Your task to perform on an android device: Open Amazon Image 0: 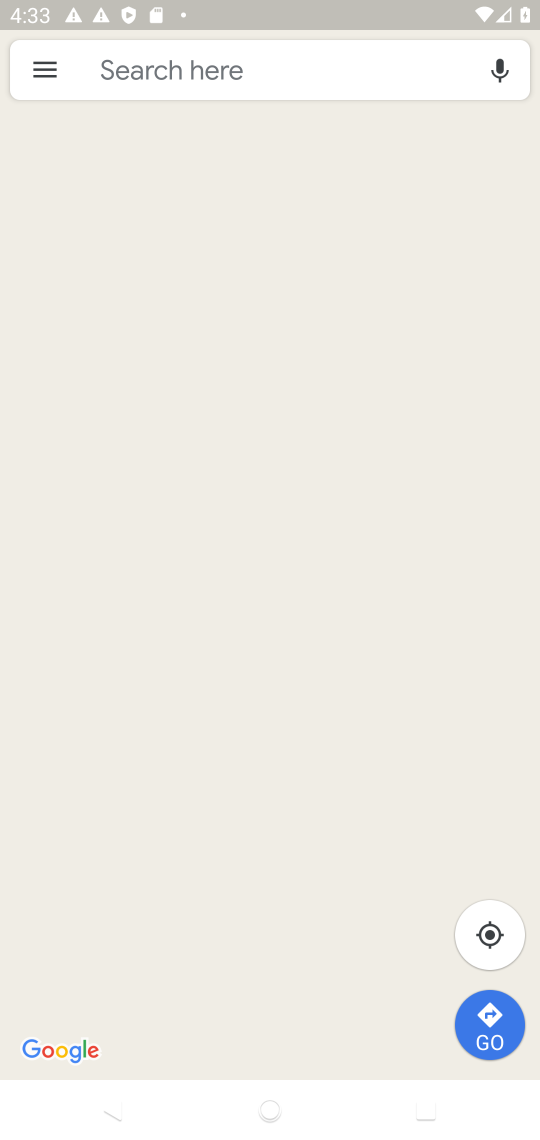
Step 0: press home button
Your task to perform on an android device: Open Amazon Image 1: 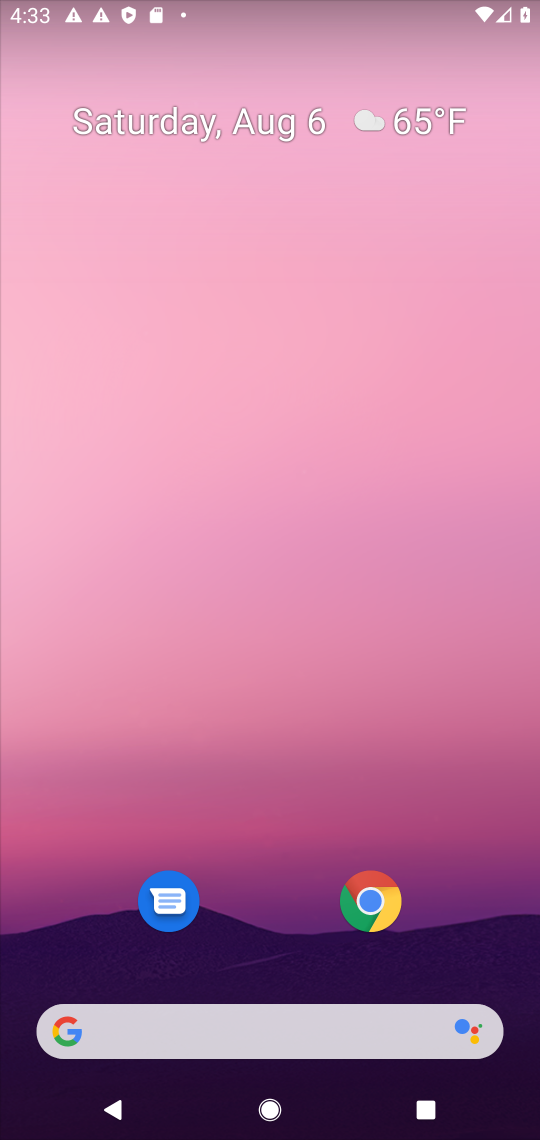
Step 1: click (378, 892)
Your task to perform on an android device: Open Amazon Image 2: 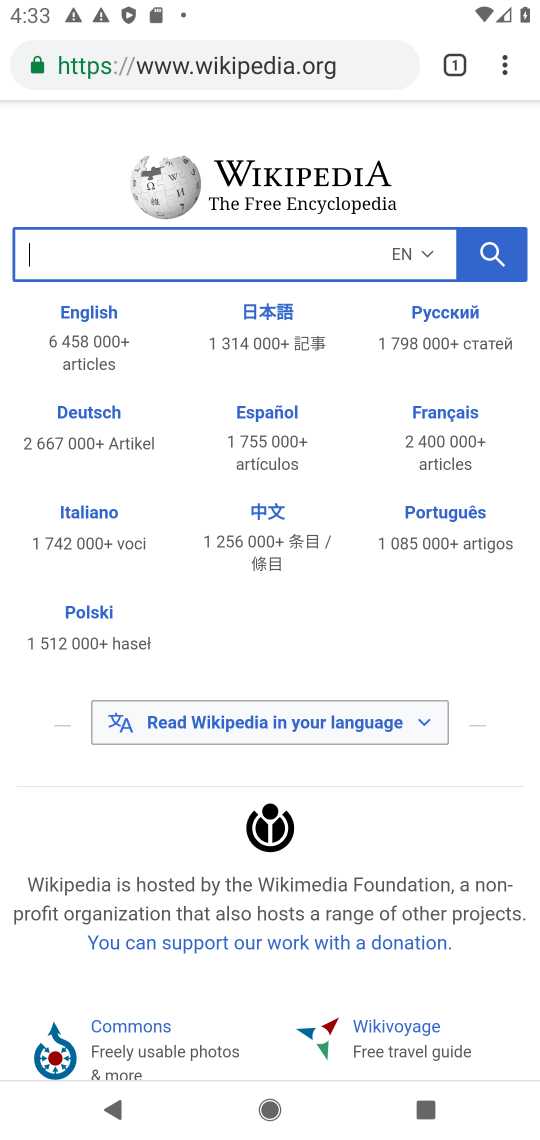
Step 2: drag from (495, 70) to (242, 850)
Your task to perform on an android device: Open Amazon Image 3: 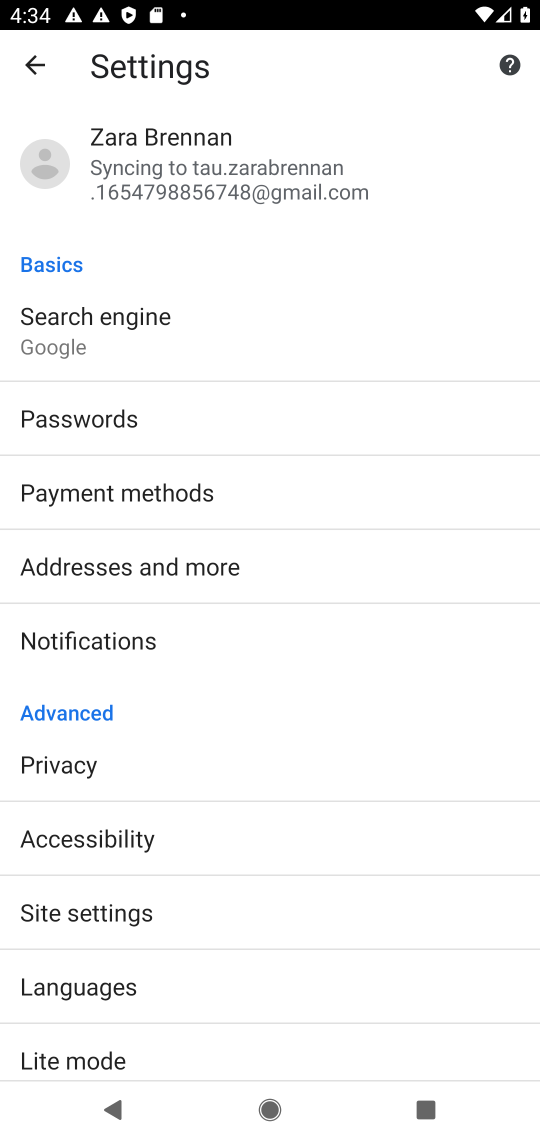
Step 3: click (27, 70)
Your task to perform on an android device: Open Amazon Image 4: 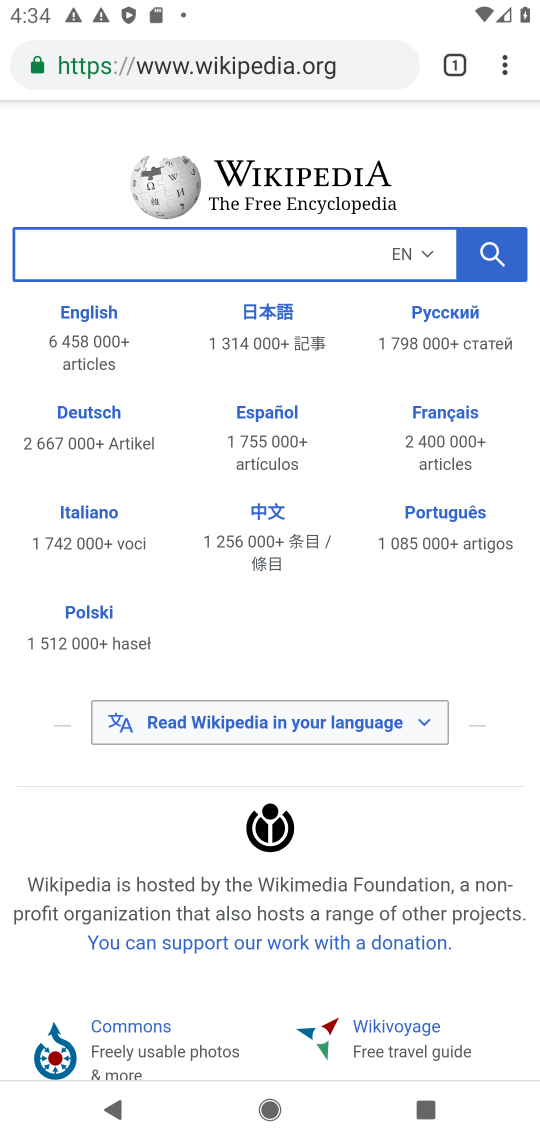
Step 4: click (243, 77)
Your task to perform on an android device: Open Amazon Image 5: 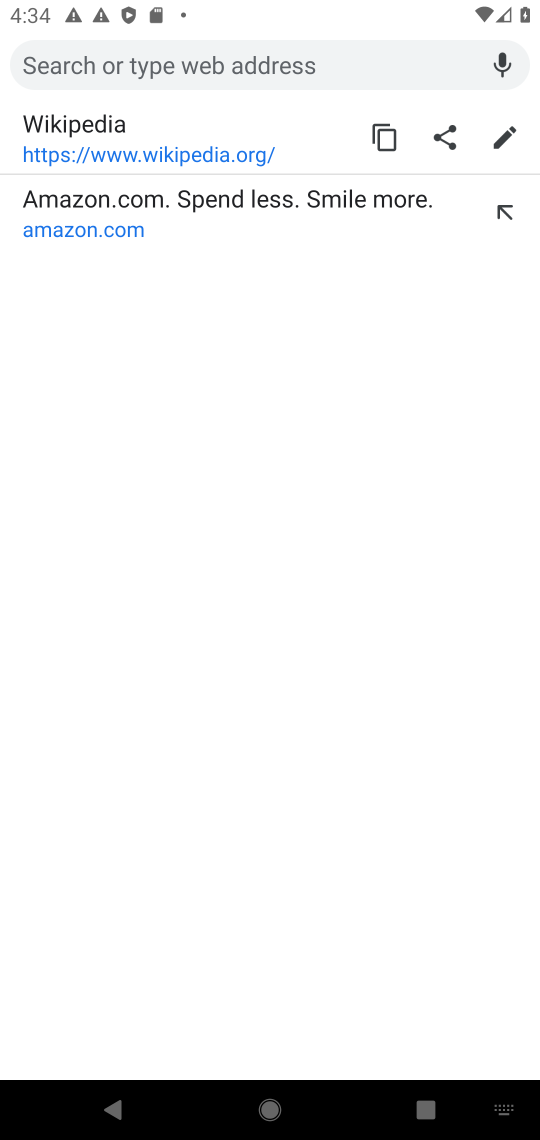
Step 5: type "amazon"
Your task to perform on an android device: Open Amazon Image 6: 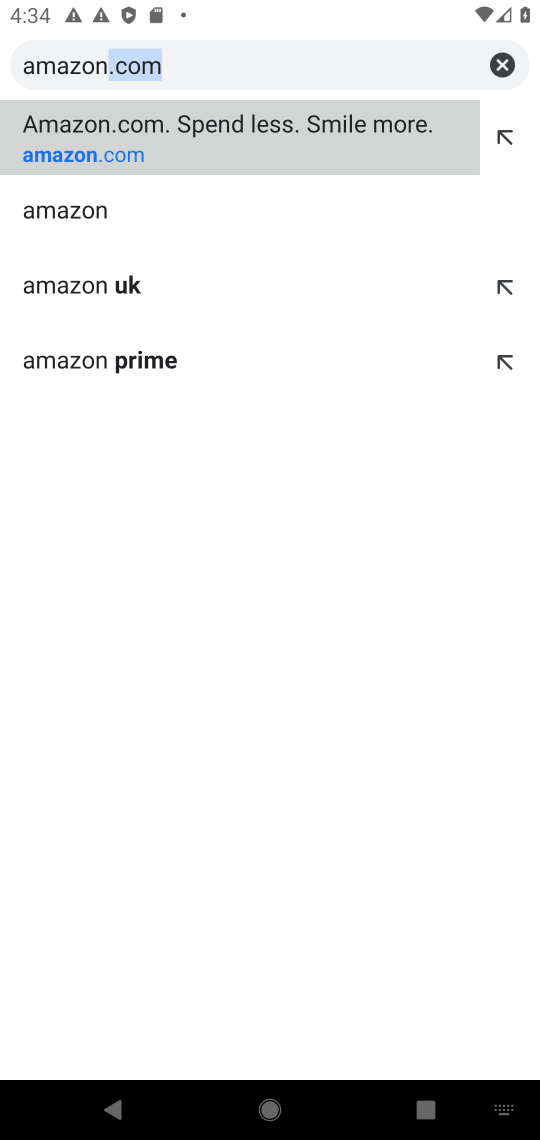
Step 6: click (142, 132)
Your task to perform on an android device: Open Amazon Image 7: 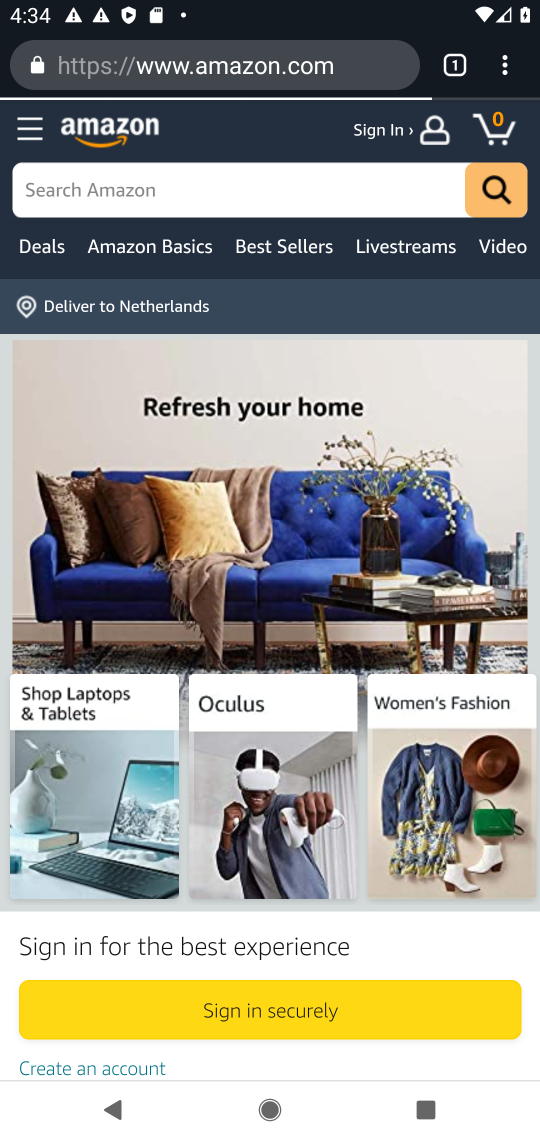
Step 7: task complete